Your task to perform on an android device: What's the weather going to be tomorrow? Image 0: 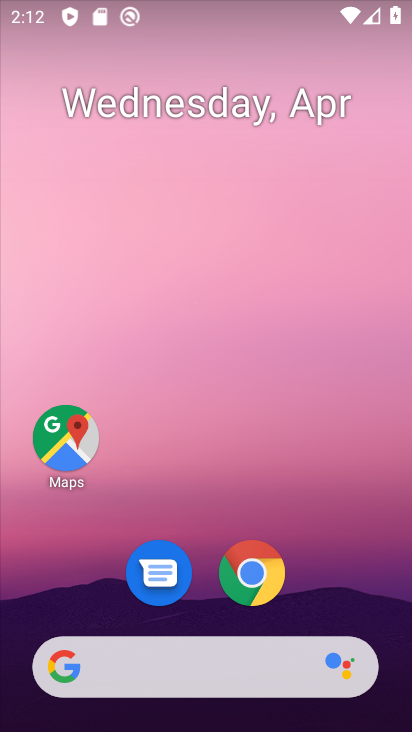
Step 0: click (189, 657)
Your task to perform on an android device: What's the weather going to be tomorrow? Image 1: 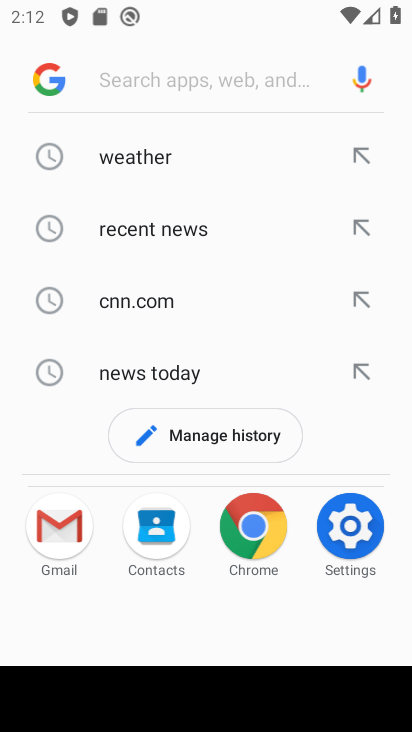
Step 1: click (137, 157)
Your task to perform on an android device: What's the weather going to be tomorrow? Image 2: 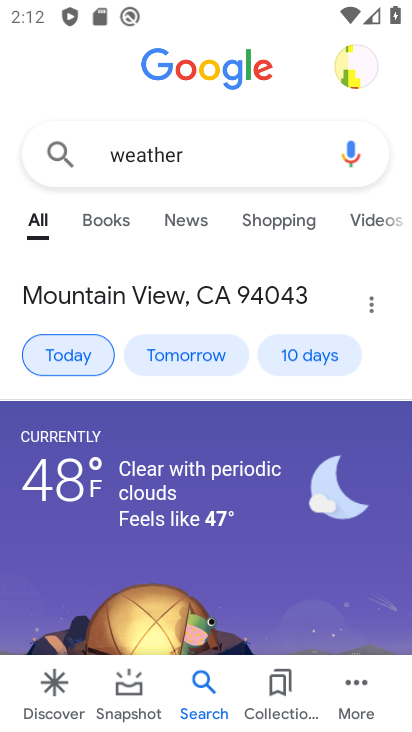
Step 2: click (183, 353)
Your task to perform on an android device: What's the weather going to be tomorrow? Image 3: 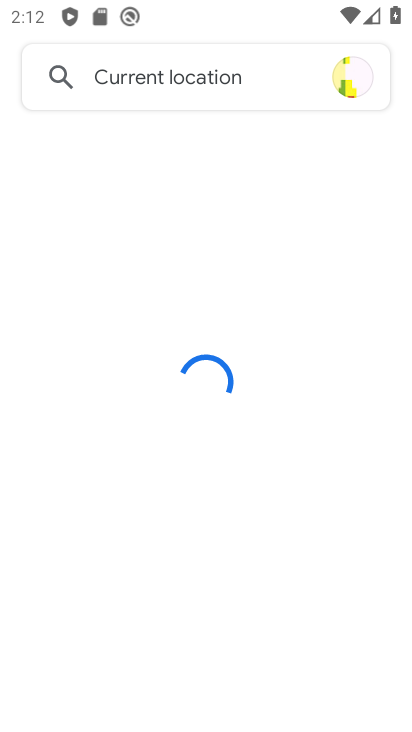
Step 3: click (191, 355)
Your task to perform on an android device: What's the weather going to be tomorrow? Image 4: 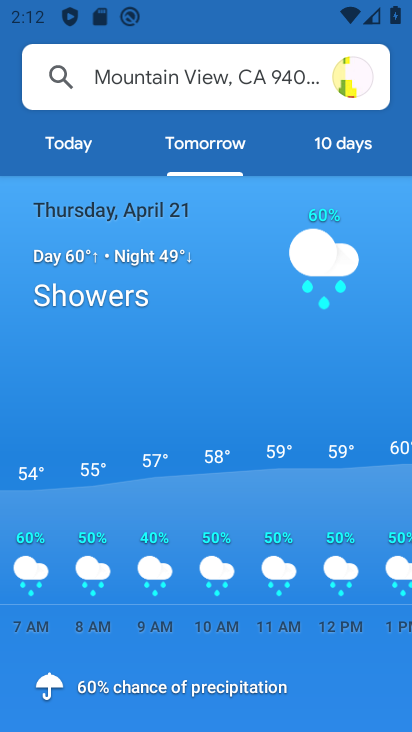
Step 4: task complete